Your task to perform on an android device: read, delete, or share a saved page in the chrome app Image 0: 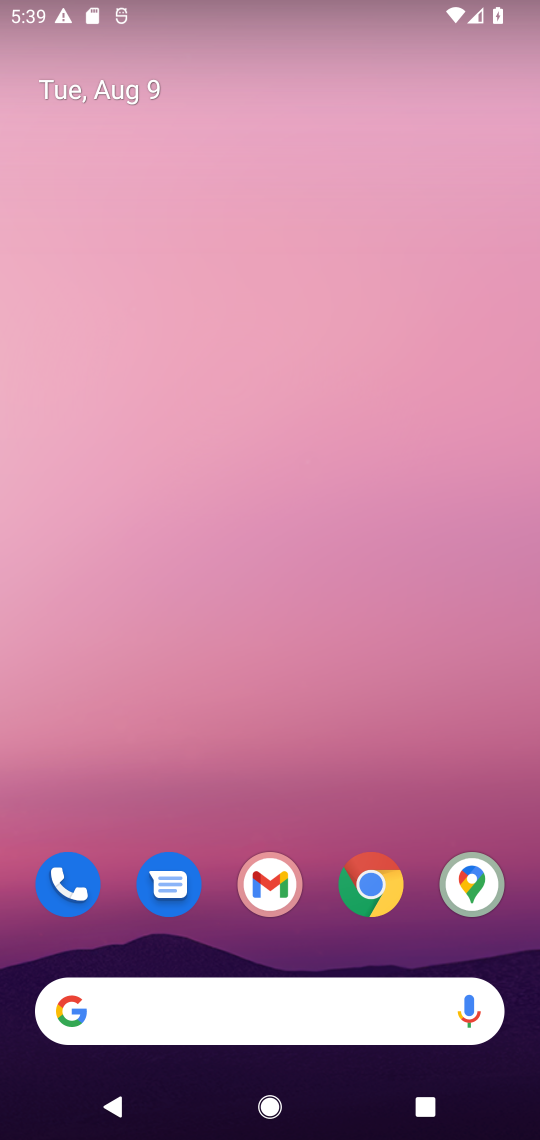
Step 0: click (371, 885)
Your task to perform on an android device: read, delete, or share a saved page in the chrome app Image 1: 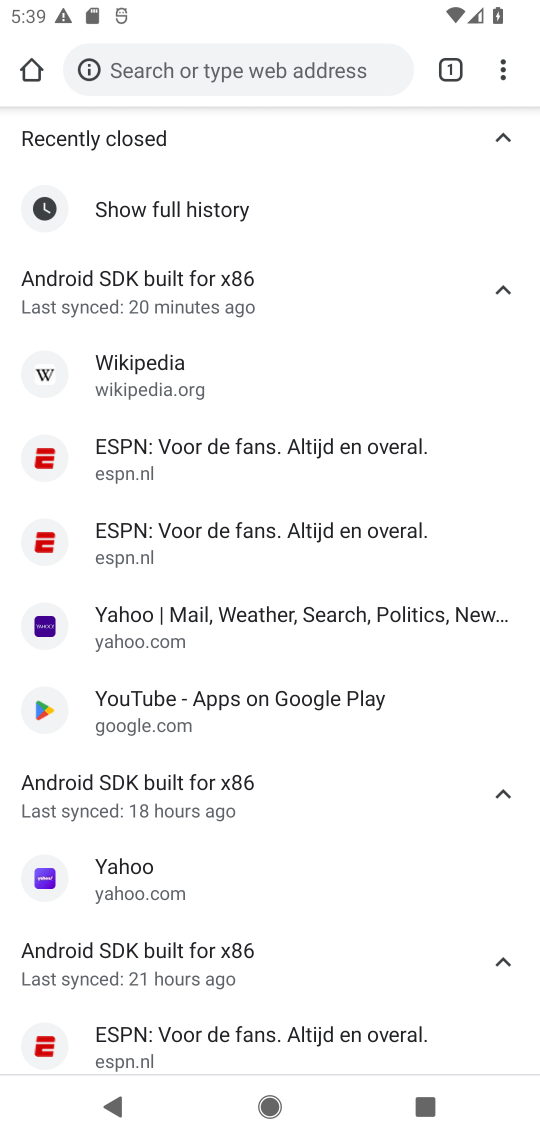
Step 1: click (506, 71)
Your task to perform on an android device: read, delete, or share a saved page in the chrome app Image 2: 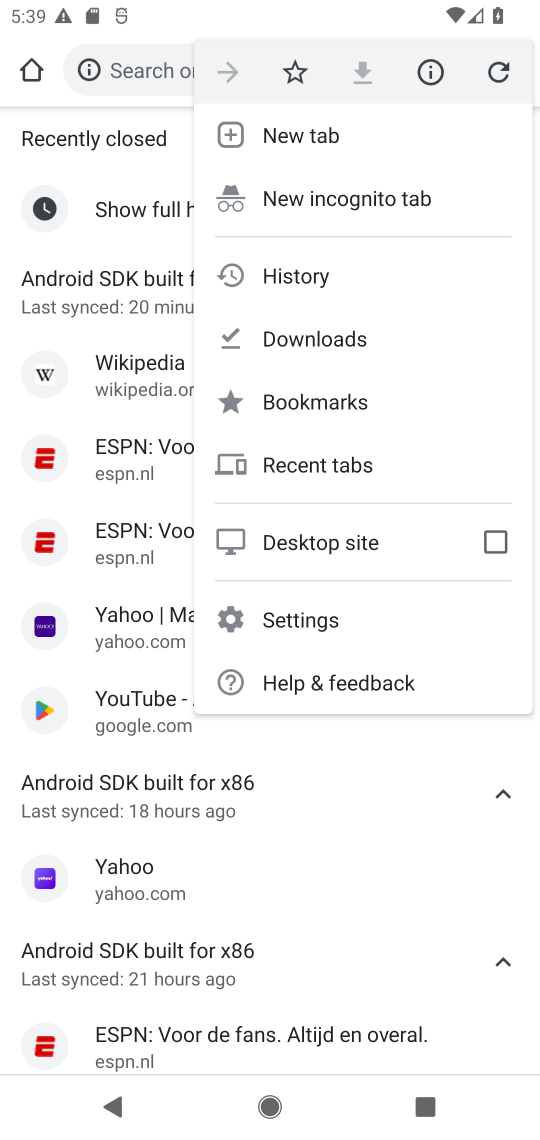
Step 2: click (307, 337)
Your task to perform on an android device: read, delete, or share a saved page in the chrome app Image 3: 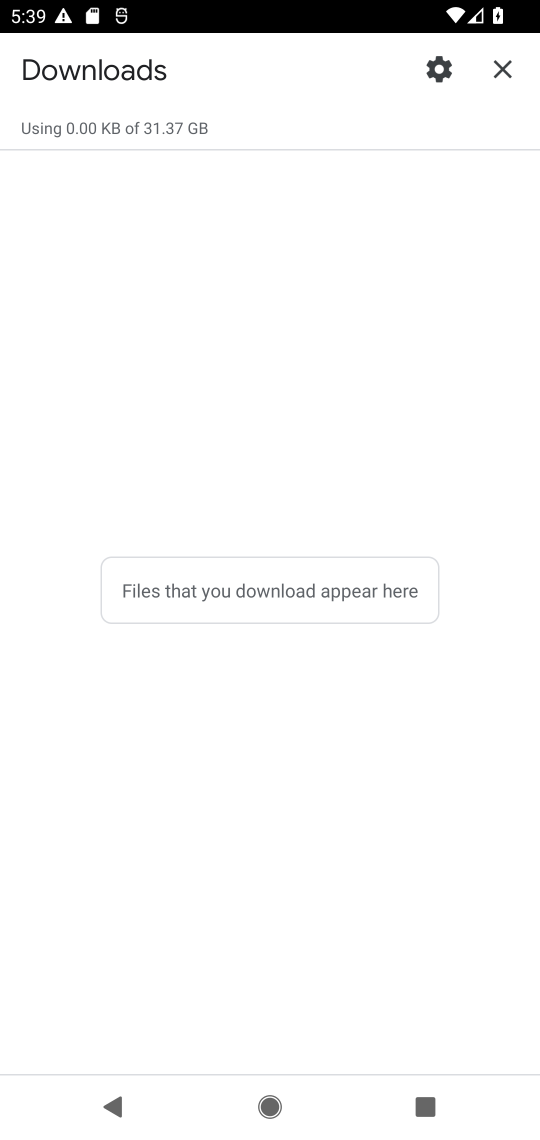
Step 3: task complete